Your task to perform on an android device: check storage Image 0: 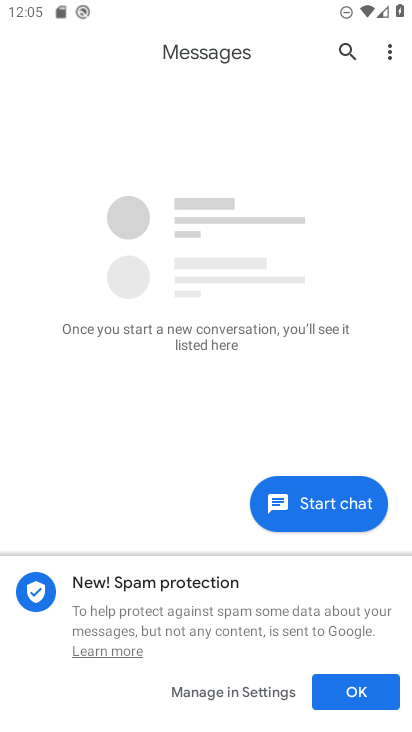
Step 0: press home button
Your task to perform on an android device: check storage Image 1: 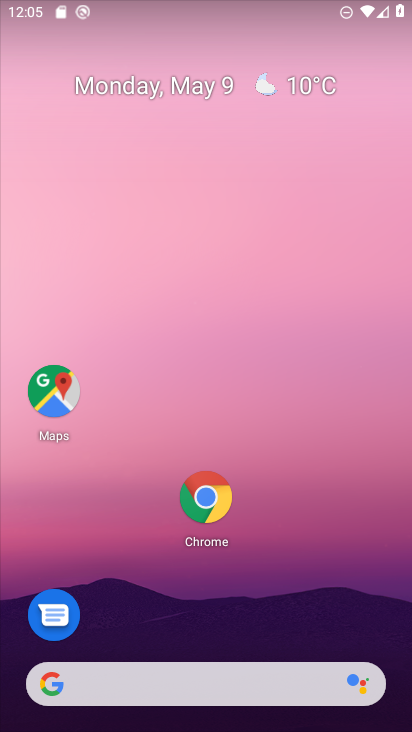
Step 1: drag from (374, 611) to (290, 164)
Your task to perform on an android device: check storage Image 2: 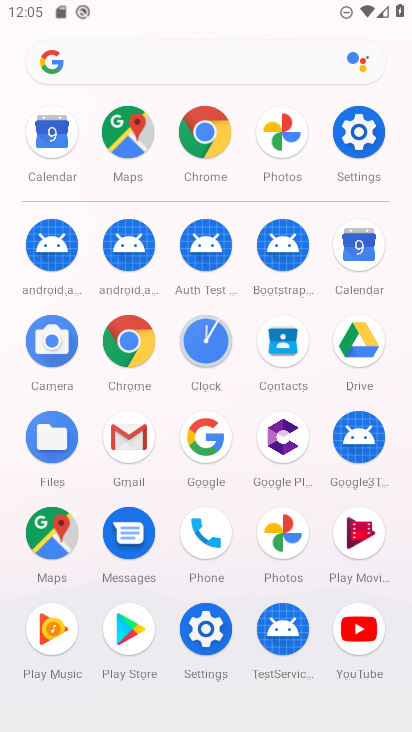
Step 2: click (371, 141)
Your task to perform on an android device: check storage Image 3: 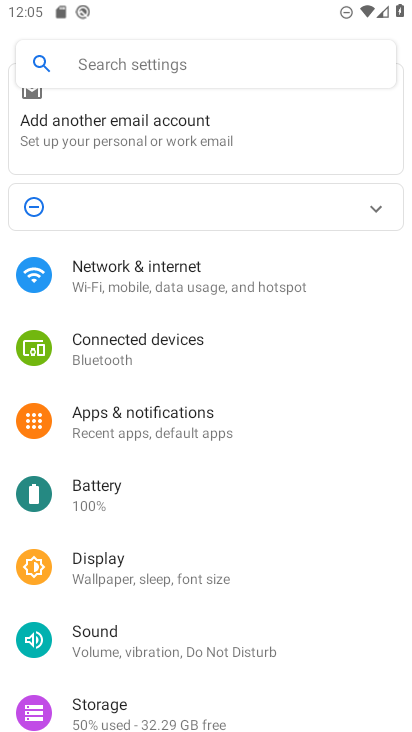
Step 3: drag from (197, 658) to (236, 292)
Your task to perform on an android device: check storage Image 4: 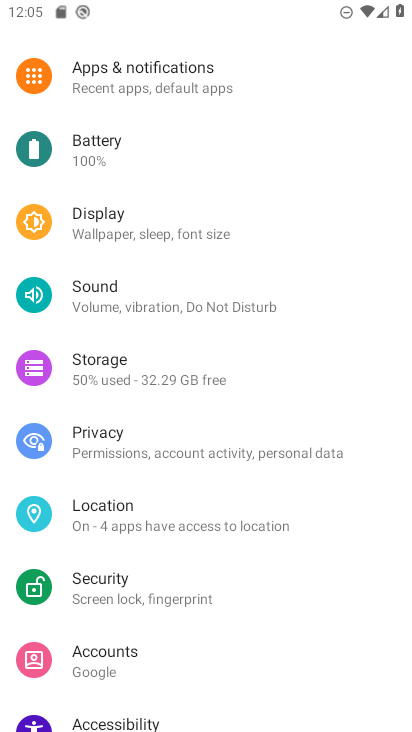
Step 4: click (137, 385)
Your task to perform on an android device: check storage Image 5: 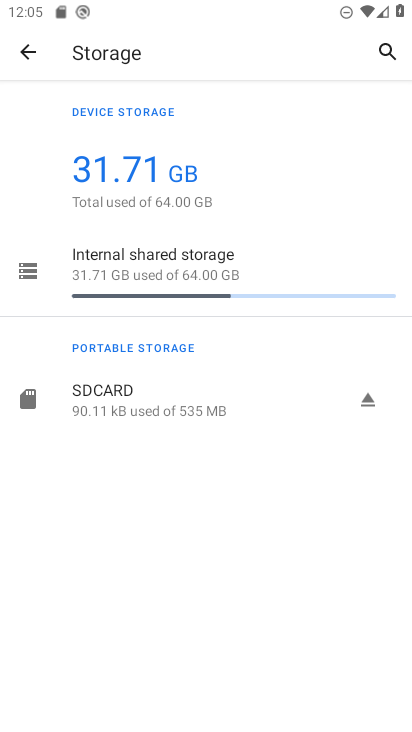
Step 5: task complete